Your task to perform on an android device: turn off data saver in the chrome app Image 0: 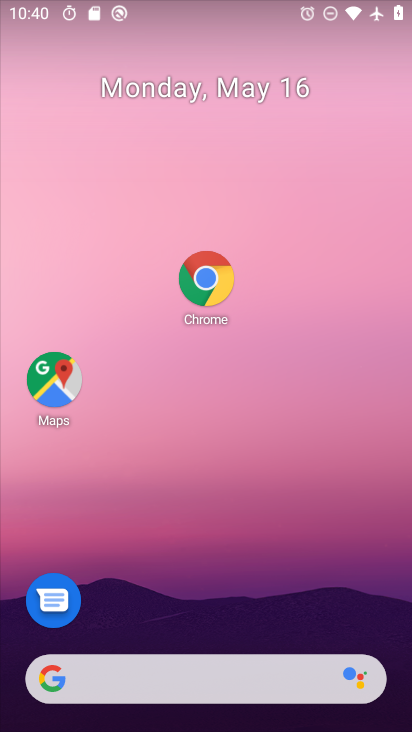
Step 0: press home button
Your task to perform on an android device: turn off data saver in the chrome app Image 1: 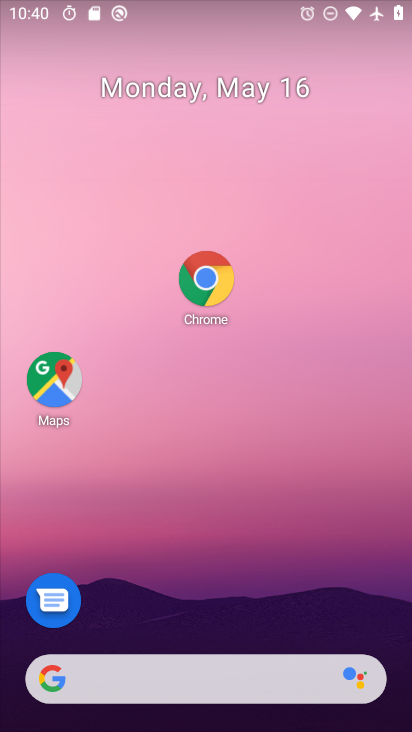
Step 1: drag from (214, 680) to (337, 200)
Your task to perform on an android device: turn off data saver in the chrome app Image 2: 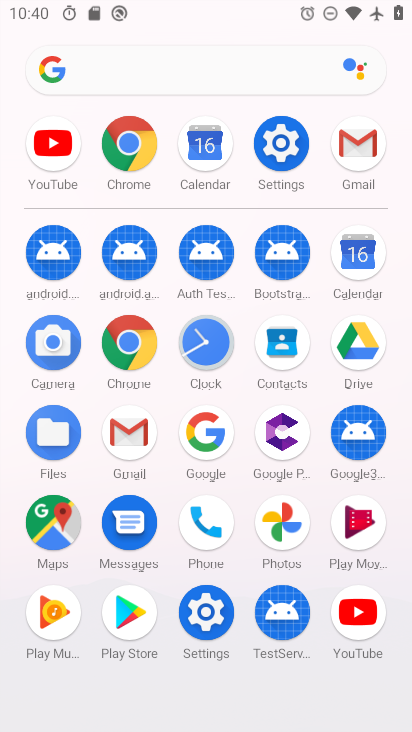
Step 2: click (137, 155)
Your task to perform on an android device: turn off data saver in the chrome app Image 3: 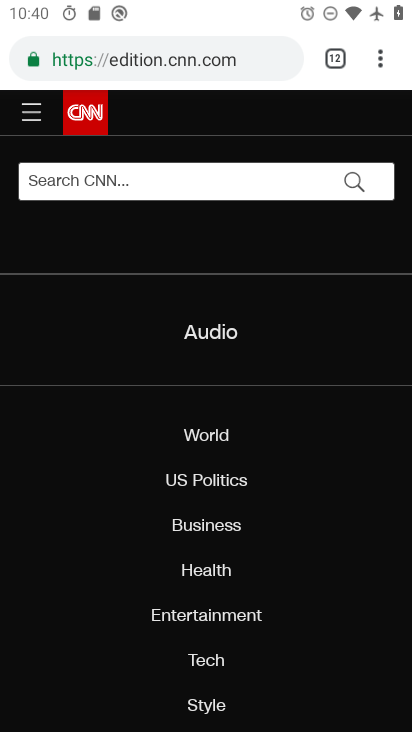
Step 3: drag from (382, 62) to (218, 639)
Your task to perform on an android device: turn off data saver in the chrome app Image 4: 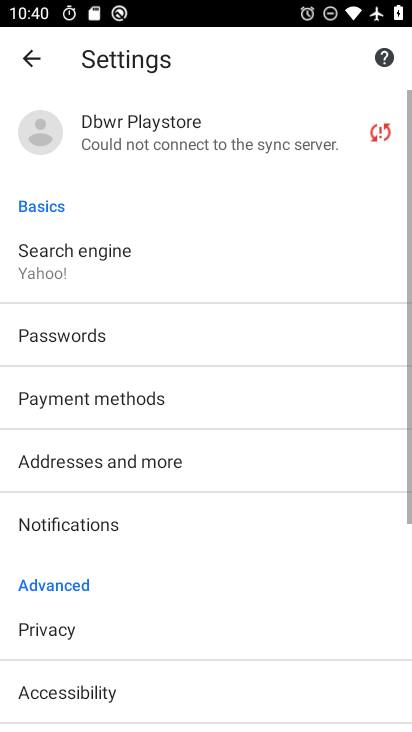
Step 4: drag from (146, 636) to (295, 189)
Your task to perform on an android device: turn off data saver in the chrome app Image 5: 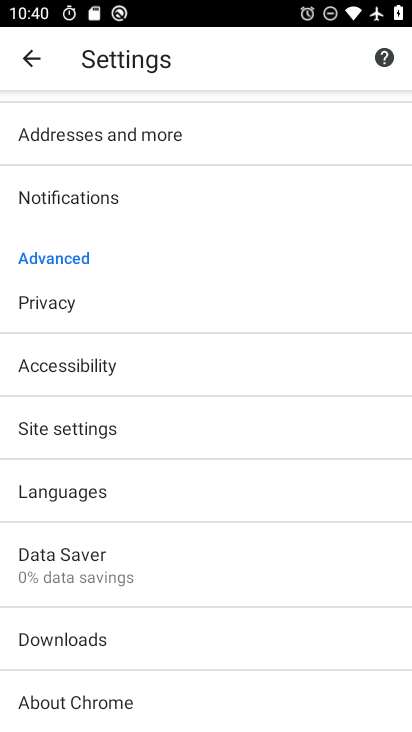
Step 5: click (100, 573)
Your task to perform on an android device: turn off data saver in the chrome app Image 6: 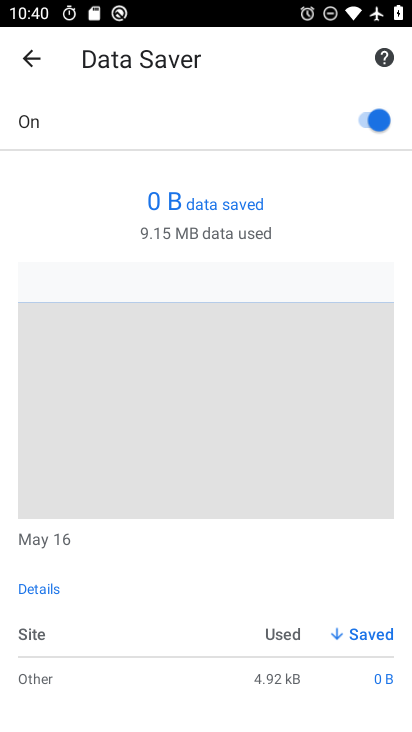
Step 6: click (365, 119)
Your task to perform on an android device: turn off data saver in the chrome app Image 7: 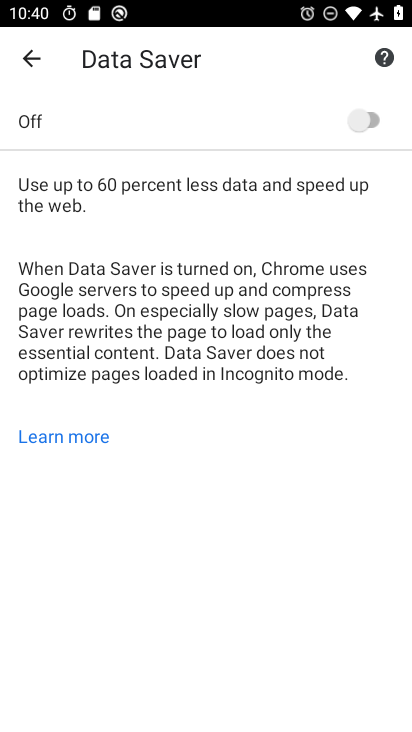
Step 7: task complete